Your task to perform on an android device: Open Google Maps Image 0: 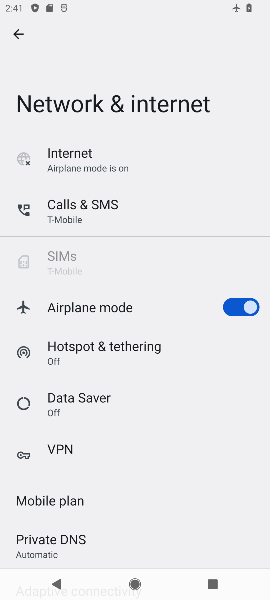
Step 0: press home button
Your task to perform on an android device: Open Google Maps Image 1: 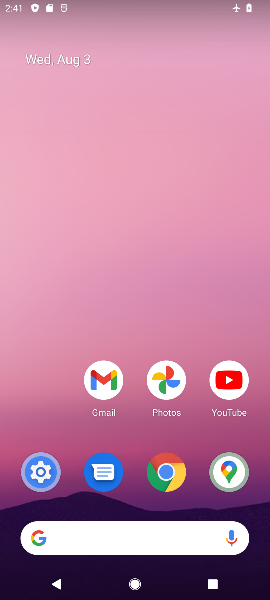
Step 1: drag from (256, 545) to (201, 56)
Your task to perform on an android device: Open Google Maps Image 2: 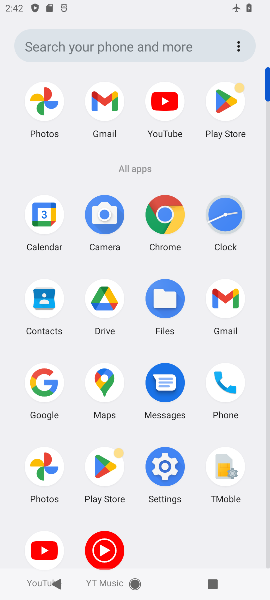
Step 2: click (105, 395)
Your task to perform on an android device: Open Google Maps Image 3: 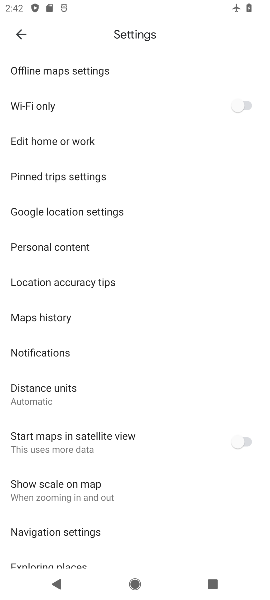
Step 3: task complete